Your task to perform on an android device: Open network settings Image 0: 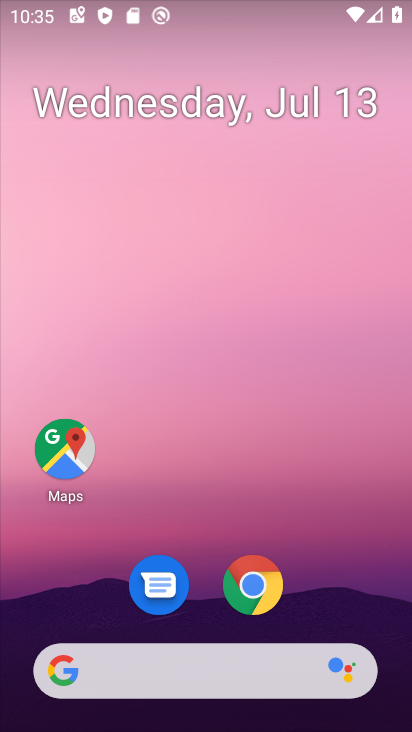
Step 0: drag from (355, 582) to (388, 44)
Your task to perform on an android device: Open network settings Image 1: 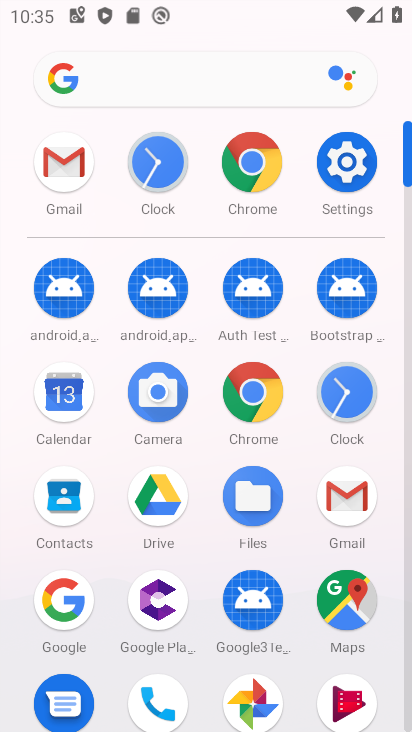
Step 1: click (347, 158)
Your task to perform on an android device: Open network settings Image 2: 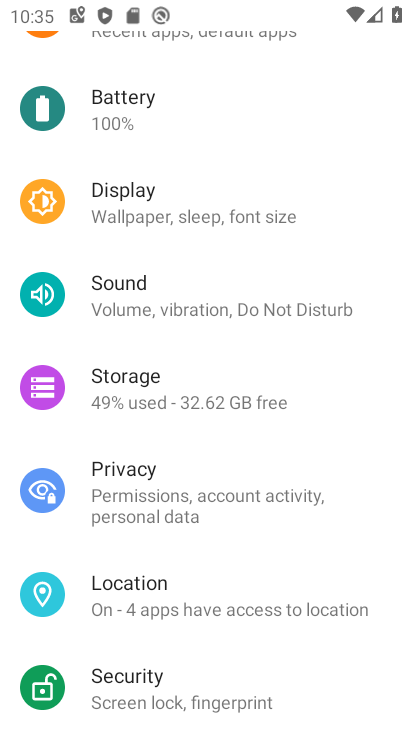
Step 2: drag from (240, 262) to (316, 649)
Your task to perform on an android device: Open network settings Image 3: 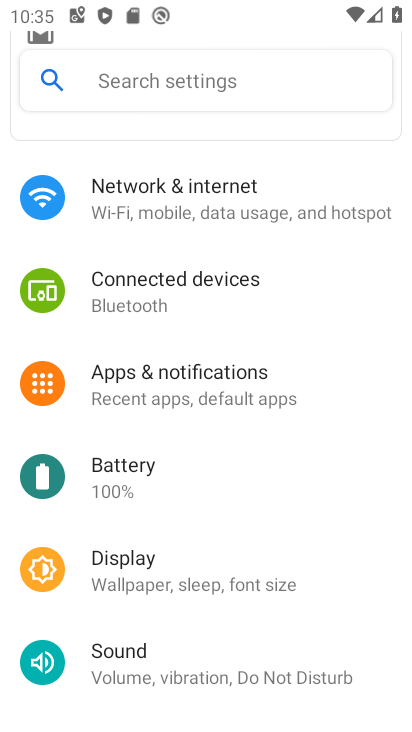
Step 3: click (238, 210)
Your task to perform on an android device: Open network settings Image 4: 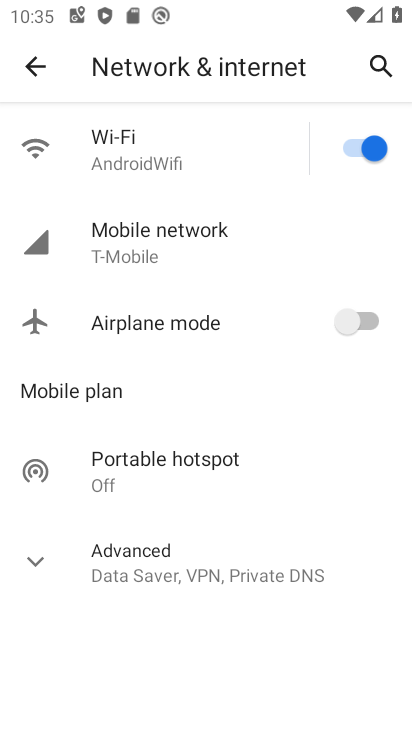
Step 4: task complete